Your task to perform on an android device: Open Google Chrome and open the bookmarks view Image 0: 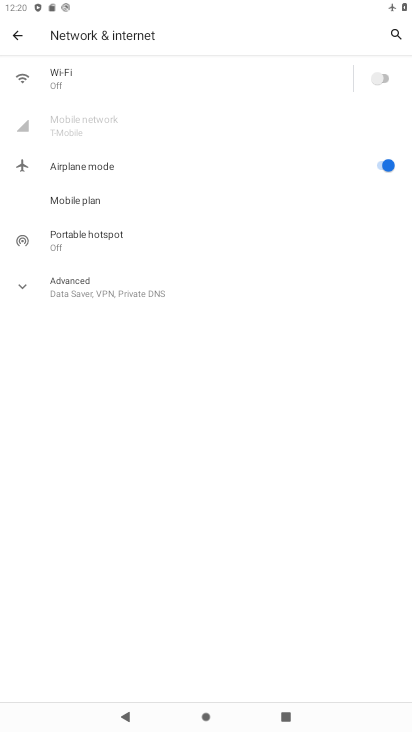
Step 0: press home button
Your task to perform on an android device: Open Google Chrome and open the bookmarks view Image 1: 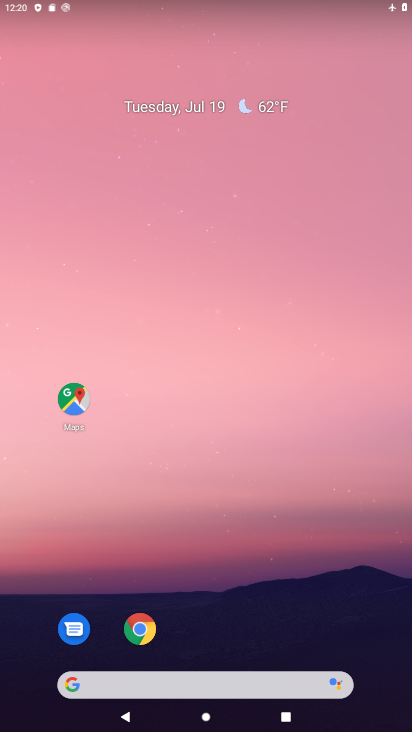
Step 1: drag from (208, 665) to (208, 4)
Your task to perform on an android device: Open Google Chrome and open the bookmarks view Image 2: 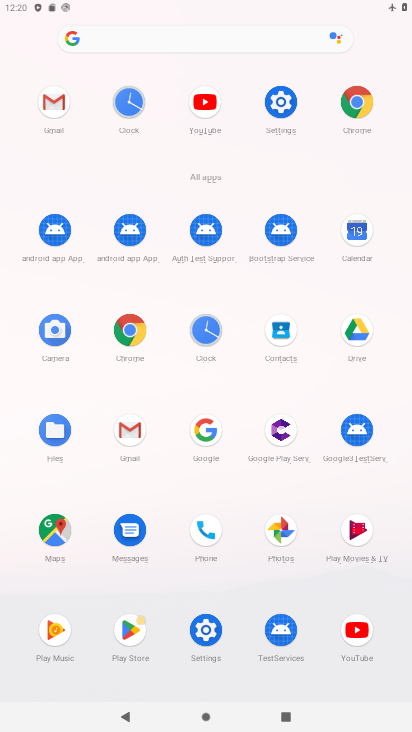
Step 2: click (129, 314)
Your task to perform on an android device: Open Google Chrome and open the bookmarks view Image 3: 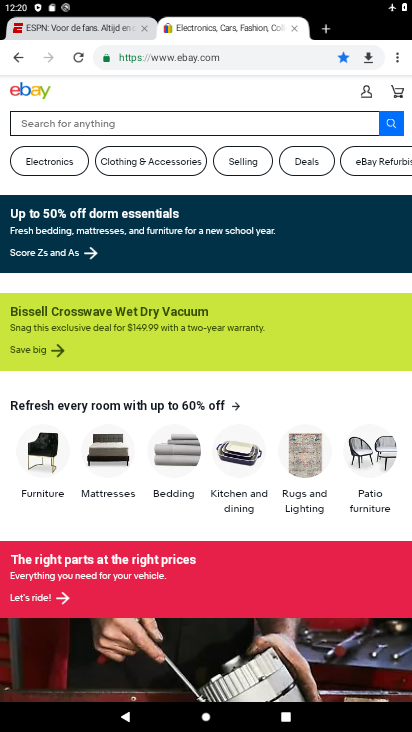
Step 3: click (394, 61)
Your task to perform on an android device: Open Google Chrome and open the bookmarks view Image 4: 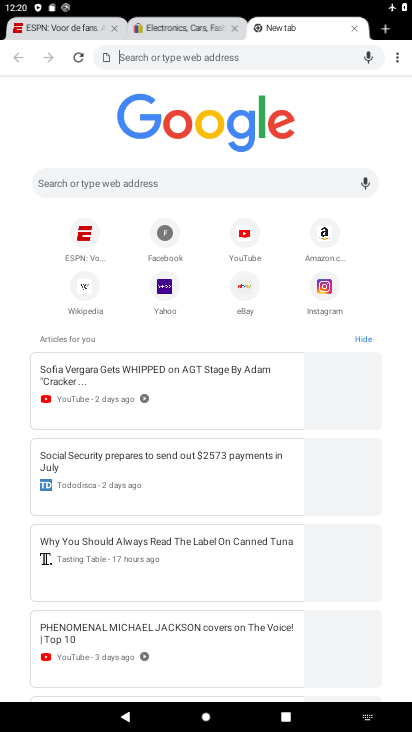
Step 4: task complete